Your task to perform on an android device: toggle airplane mode Image 0: 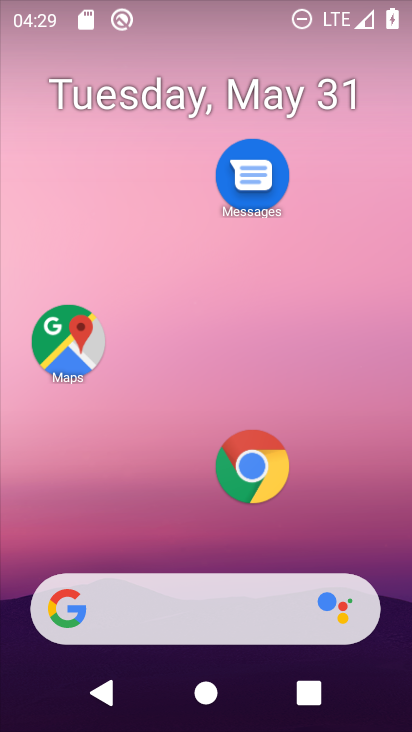
Step 0: drag from (283, 14) to (245, 601)
Your task to perform on an android device: toggle airplane mode Image 1: 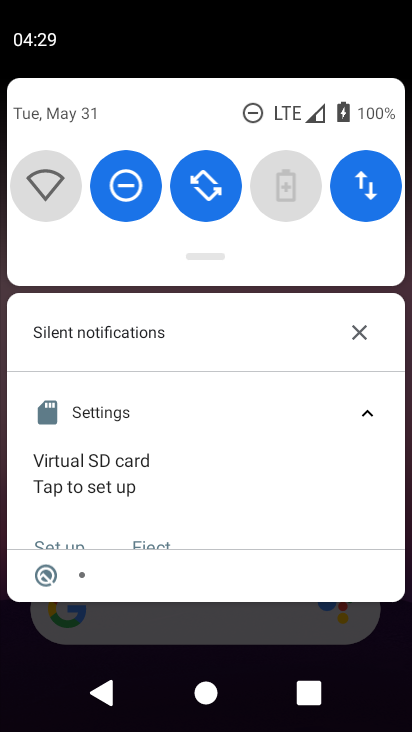
Step 1: drag from (193, 250) to (235, 620)
Your task to perform on an android device: toggle airplane mode Image 2: 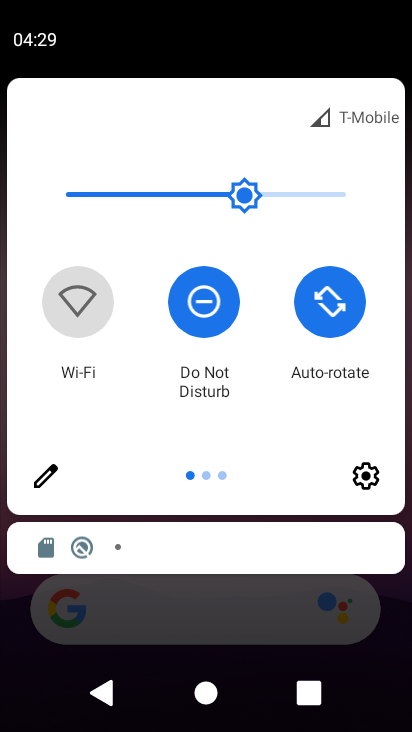
Step 2: drag from (374, 318) to (0, 307)
Your task to perform on an android device: toggle airplane mode Image 3: 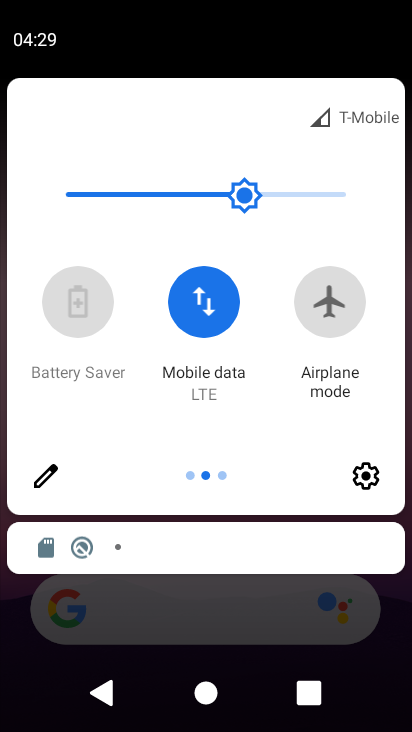
Step 3: click (323, 299)
Your task to perform on an android device: toggle airplane mode Image 4: 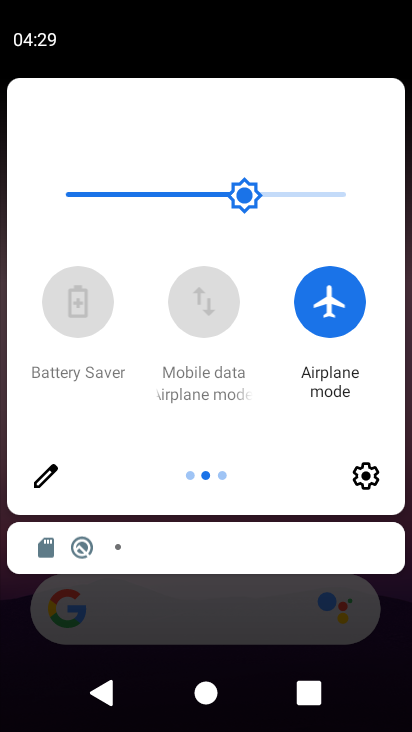
Step 4: task complete